Your task to perform on an android device: toggle location history Image 0: 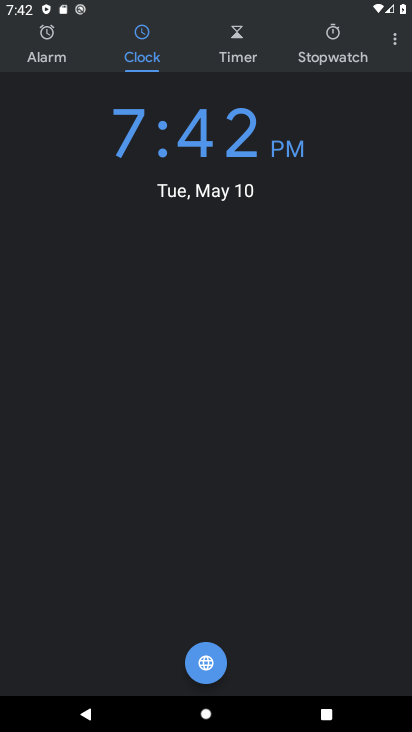
Step 0: press home button
Your task to perform on an android device: toggle location history Image 1: 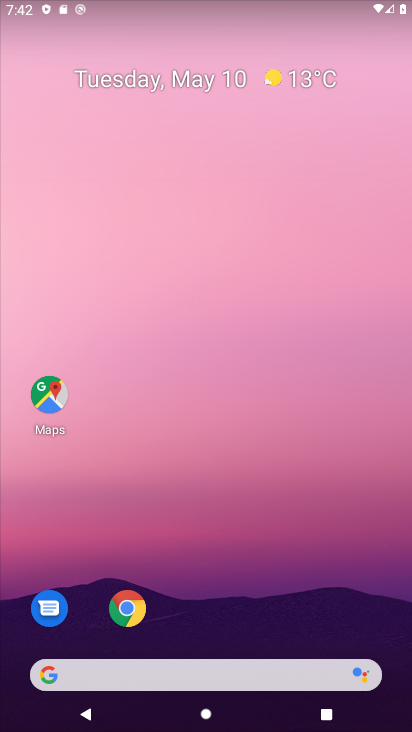
Step 1: drag from (170, 662) to (226, 66)
Your task to perform on an android device: toggle location history Image 2: 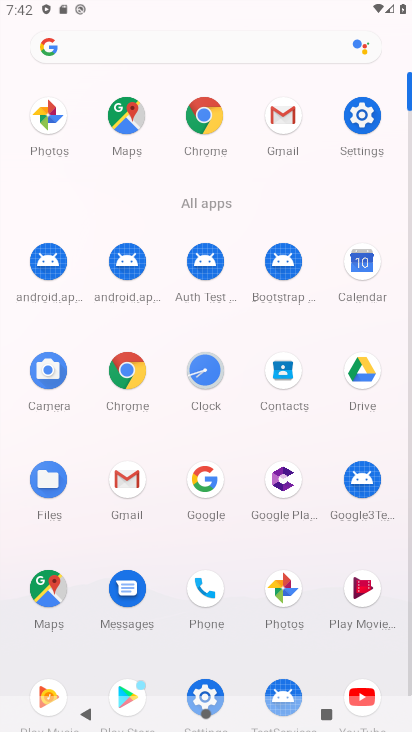
Step 2: click (130, 116)
Your task to perform on an android device: toggle location history Image 3: 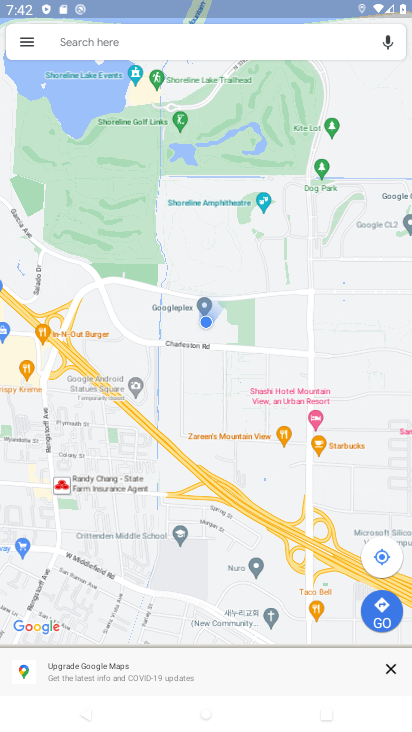
Step 3: click (21, 43)
Your task to perform on an android device: toggle location history Image 4: 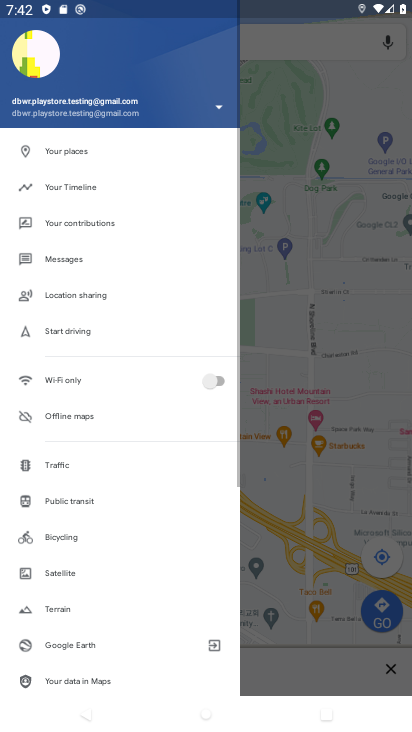
Step 4: click (83, 187)
Your task to perform on an android device: toggle location history Image 5: 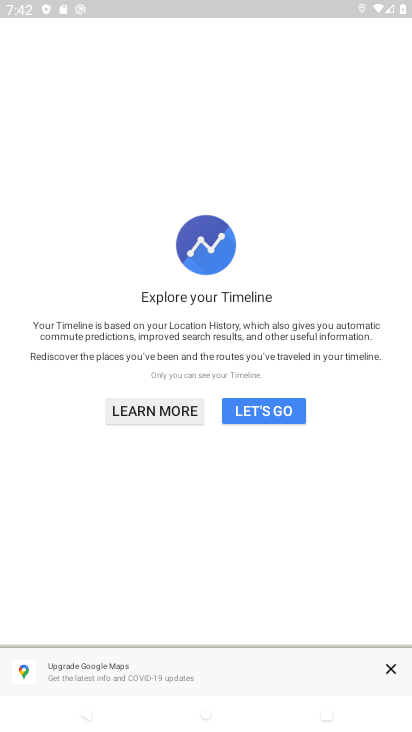
Step 5: click (257, 417)
Your task to perform on an android device: toggle location history Image 6: 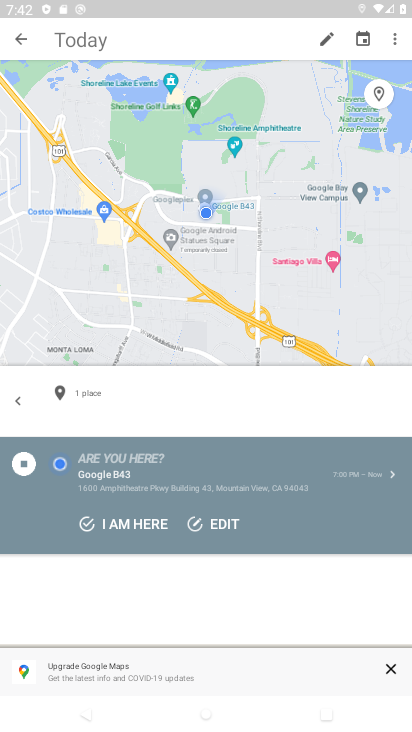
Step 6: click (389, 40)
Your task to perform on an android device: toggle location history Image 7: 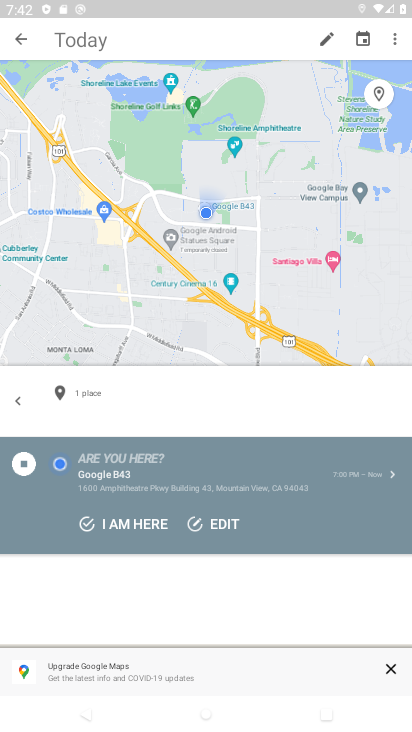
Step 7: click (395, 43)
Your task to perform on an android device: toggle location history Image 8: 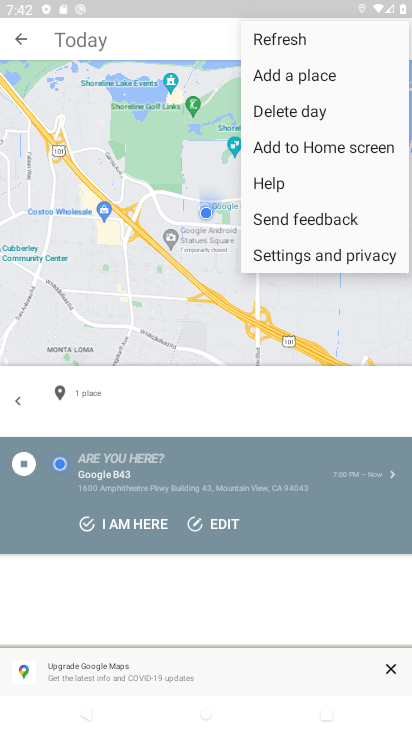
Step 8: click (317, 257)
Your task to perform on an android device: toggle location history Image 9: 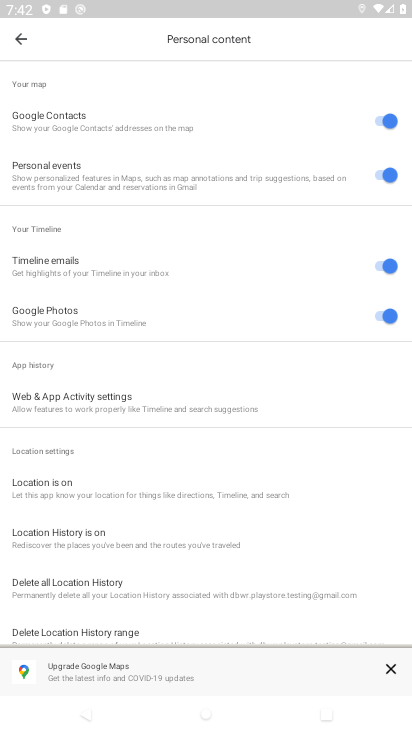
Step 9: click (81, 534)
Your task to perform on an android device: toggle location history Image 10: 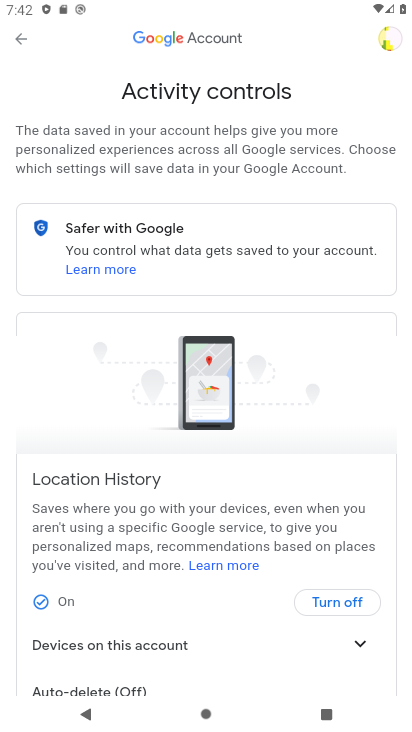
Step 10: click (344, 599)
Your task to perform on an android device: toggle location history Image 11: 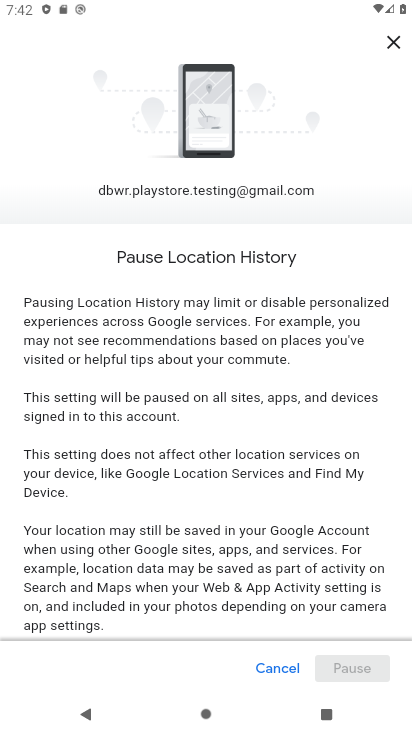
Step 11: drag from (246, 602) to (351, 142)
Your task to perform on an android device: toggle location history Image 12: 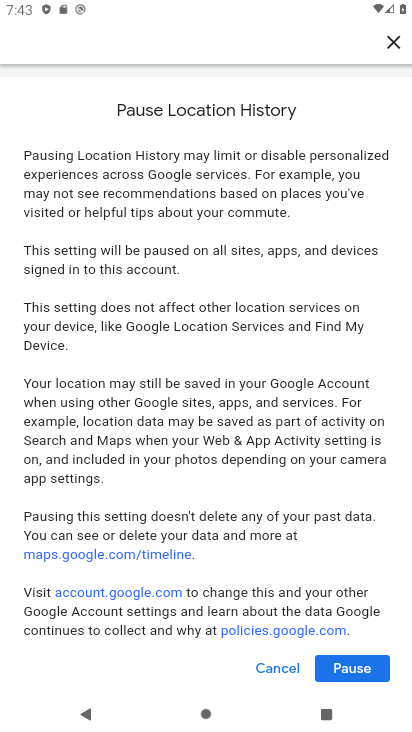
Step 12: click (359, 673)
Your task to perform on an android device: toggle location history Image 13: 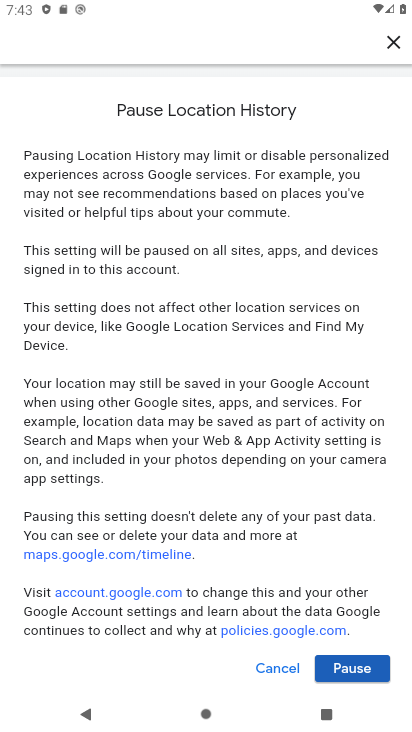
Step 13: click (356, 671)
Your task to perform on an android device: toggle location history Image 14: 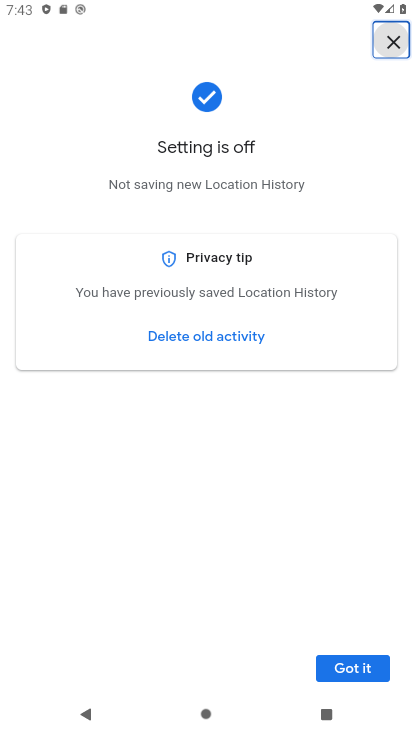
Step 14: click (347, 667)
Your task to perform on an android device: toggle location history Image 15: 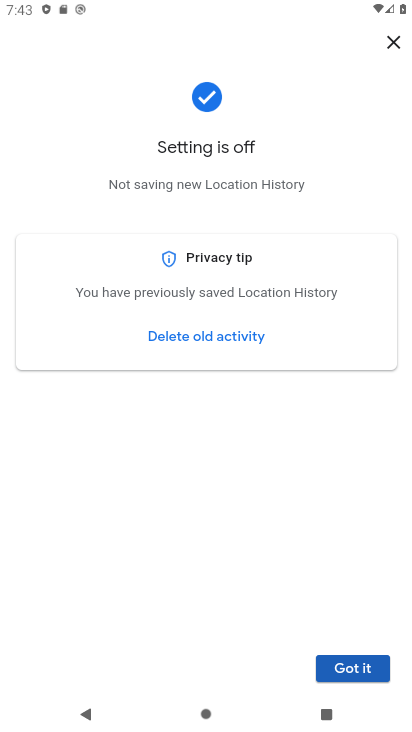
Step 15: click (366, 670)
Your task to perform on an android device: toggle location history Image 16: 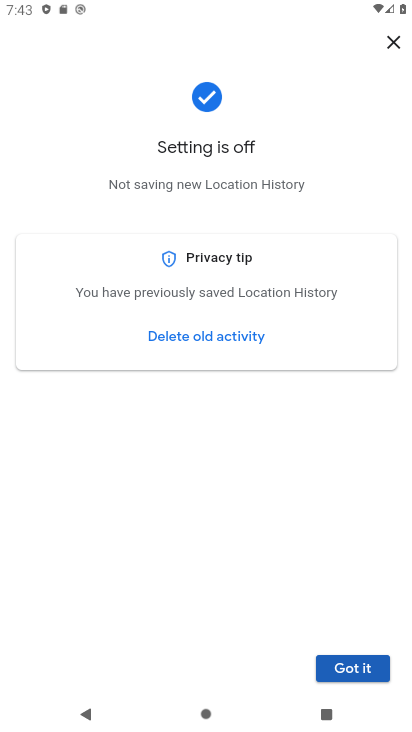
Step 16: task complete